Your task to perform on an android device: read, delete, or share a saved page in the chrome app Image 0: 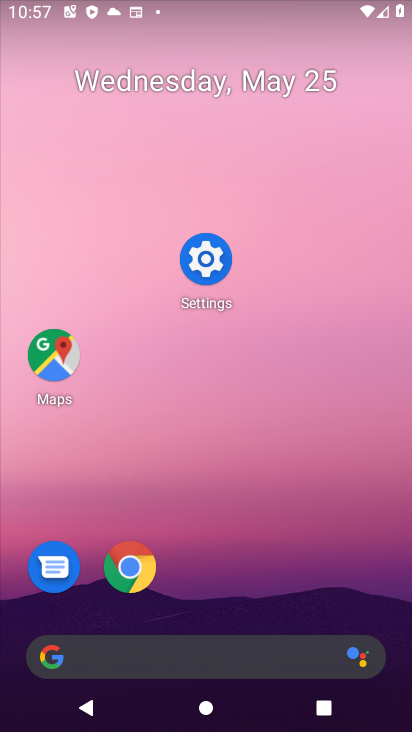
Step 0: click (134, 554)
Your task to perform on an android device: read, delete, or share a saved page in the chrome app Image 1: 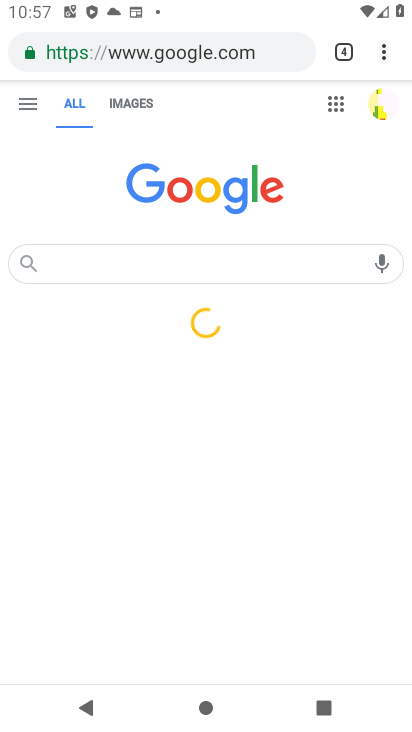
Step 1: click (375, 61)
Your task to perform on an android device: read, delete, or share a saved page in the chrome app Image 2: 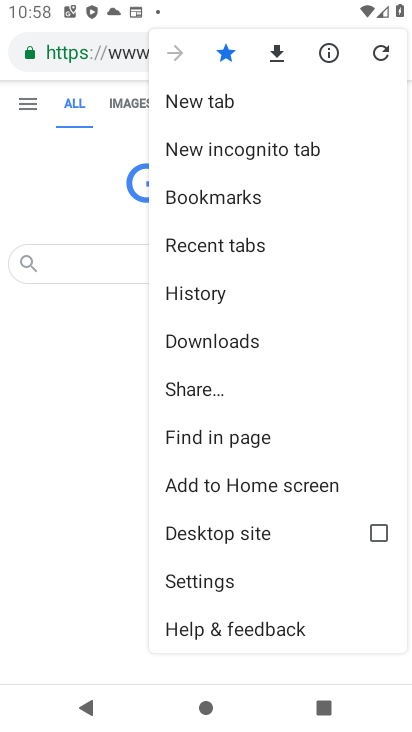
Step 2: click (237, 585)
Your task to perform on an android device: read, delete, or share a saved page in the chrome app Image 3: 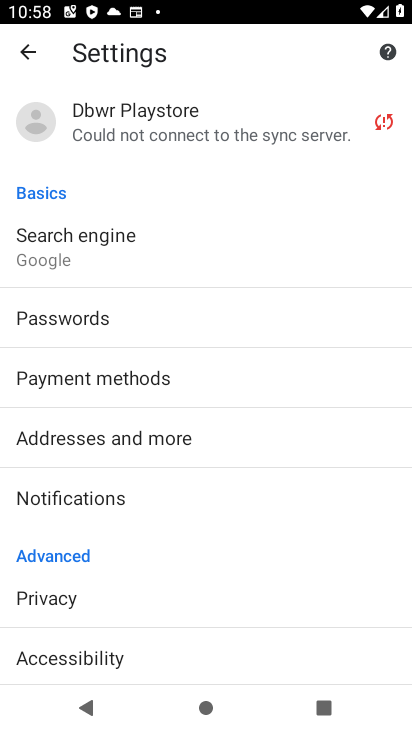
Step 3: drag from (120, 542) to (123, 374)
Your task to perform on an android device: read, delete, or share a saved page in the chrome app Image 4: 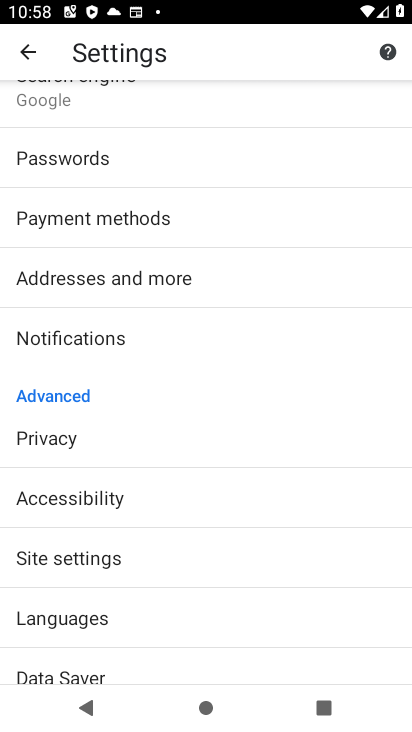
Step 4: click (149, 546)
Your task to perform on an android device: read, delete, or share a saved page in the chrome app Image 5: 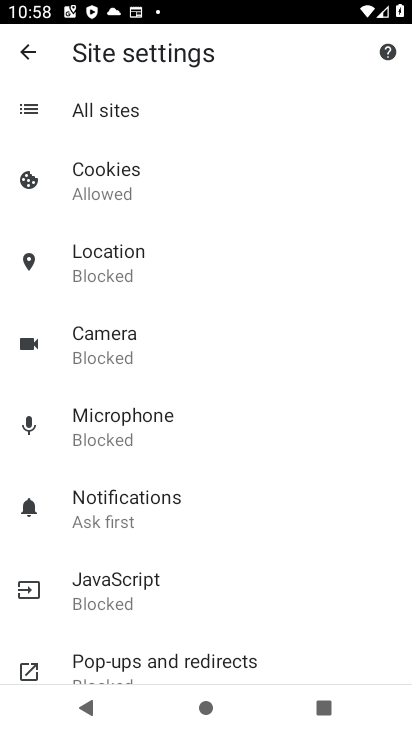
Step 5: task complete